Your task to perform on an android device: turn on data saver in the chrome app Image 0: 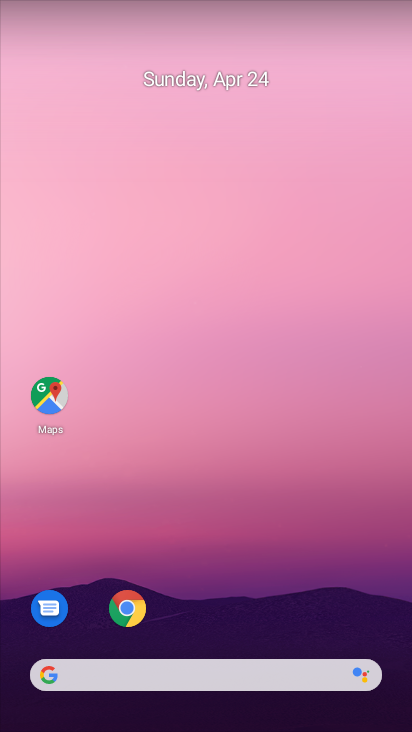
Step 0: click (140, 603)
Your task to perform on an android device: turn on data saver in the chrome app Image 1: 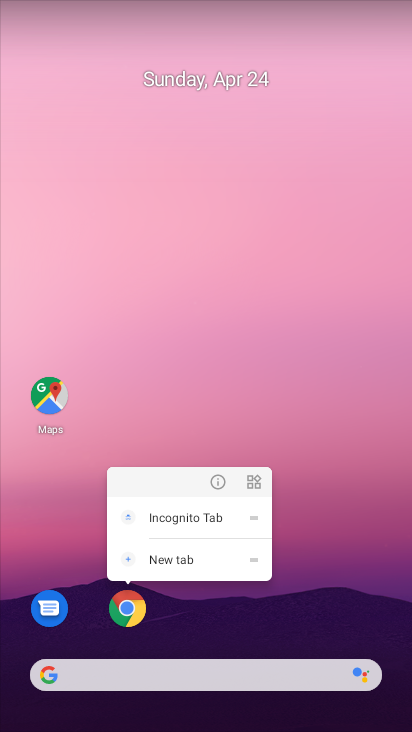
Step 1: click (140, 603)
Your task to perform on an android device: turn on data saver in the chrome app Image 2: 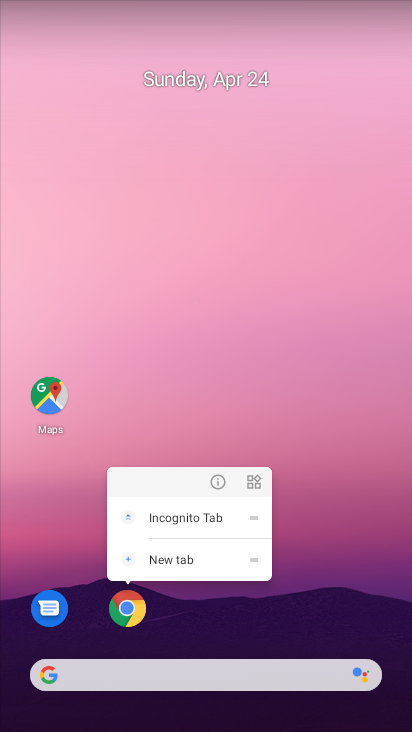
Step 2: click (125, 603)
Your task to perform on an android device: turn on data saver in the chrome app Image 3: 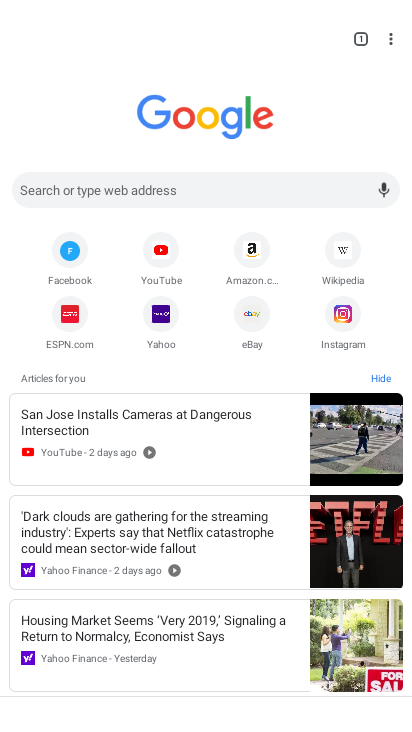
Step 3: click (392, 35)
Your task to perform on an android device: turn on data saver in the chrome app Image 4: 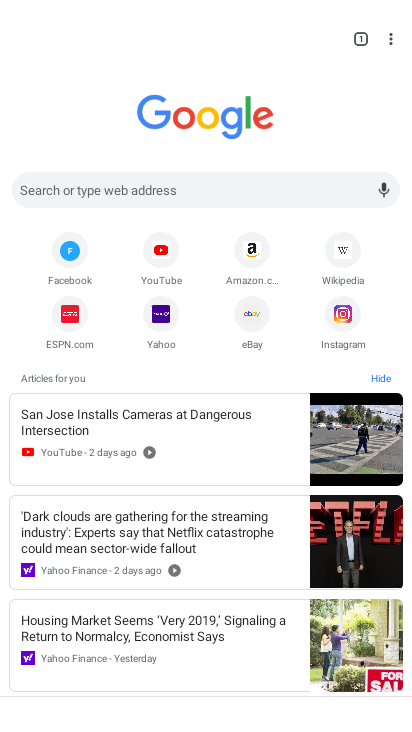
Step 4: click (392, 35)
Your task to perform on an android device: turn on data saver in the chrome app Image 5: 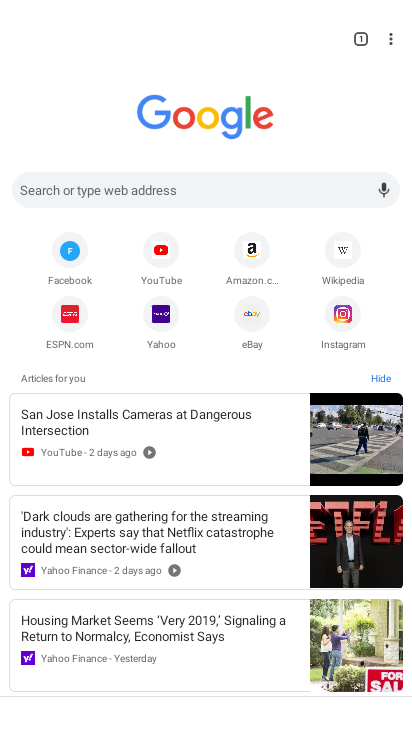
Step 5: click (370, 106)
Your task to perform on an android device: turn on data saver in the chrome app Image 6: 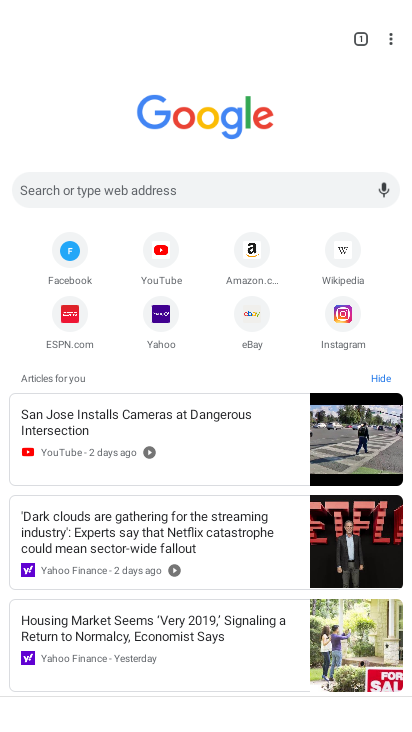
Step 6: click (391, 35)
Your task to perform on an android device: turn on data saver in the chrome app Image 7: 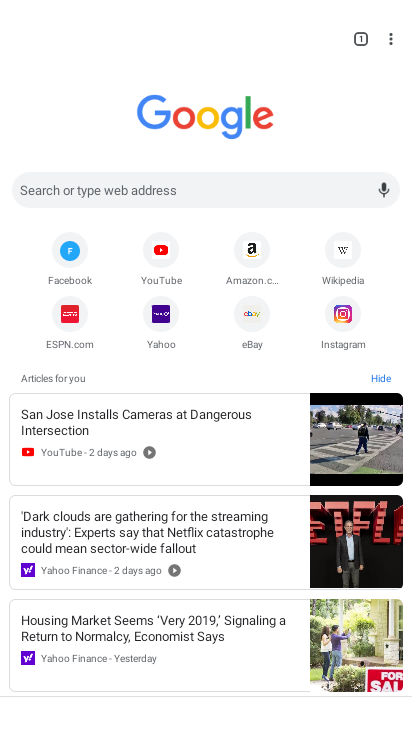
Step 7: click (387, 46)
Your task to perform on an android device: turn on data saver in the chrome app Image 8: 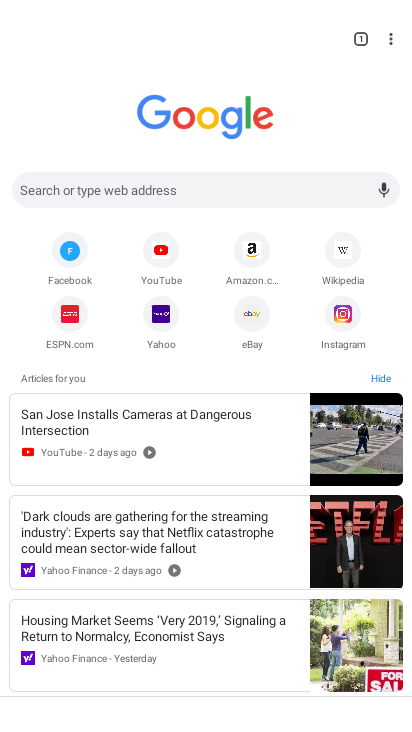
Step 8: click (387, 46)
Your task to perform on an android device: turn on data saver in the chrome app Image 9: 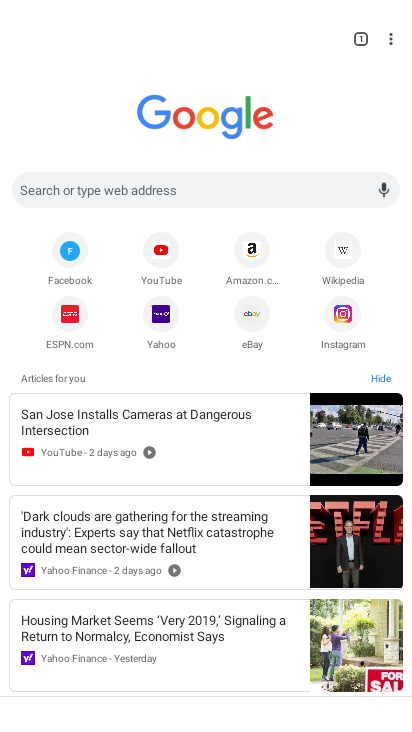
Step 9: drag from (389, 43) to (254, 318)
Your task to perform on an android device: turn on data saver in the chrome app Image 10: 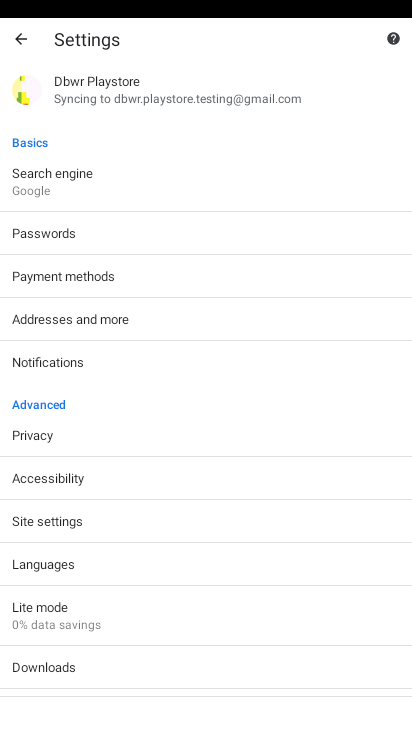
Step 10: click (168, 618)
Your task to perform on an android device: turn on data saver in the chrome app Image 11: 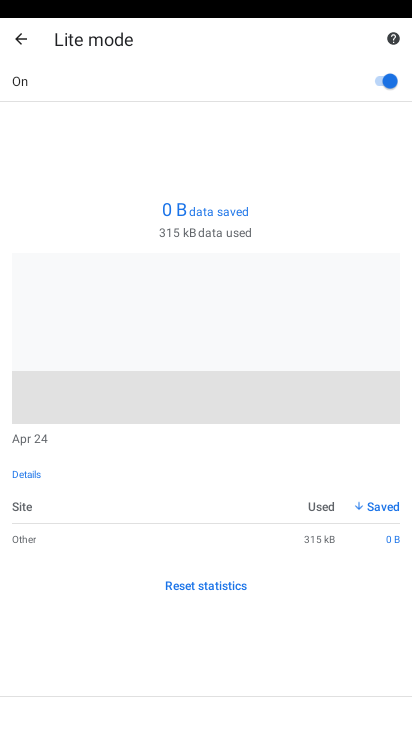
Step 11: task complete